Your task to perform on an android device: Go to Reddit.com Image 0: 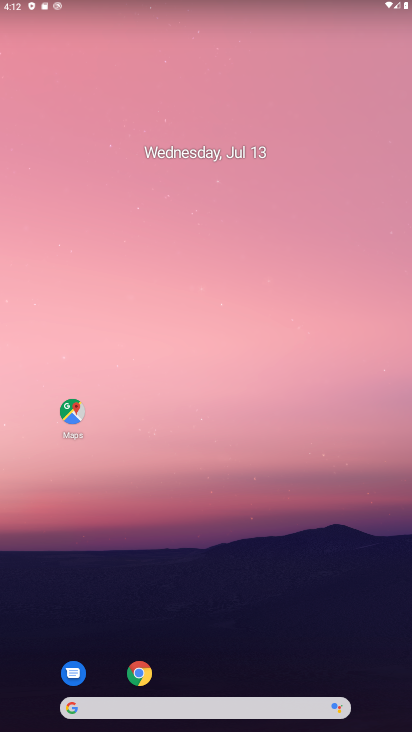
Step 0: click (219, 181)
Your task to perform on an android device: Go to Reddit.com Image 1: 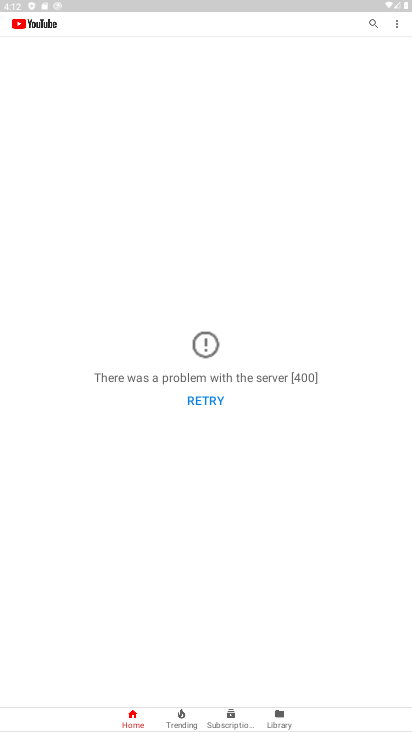
Step 1: press back button
Your task to perform on an android device: Go to Reddit.com Image 2: 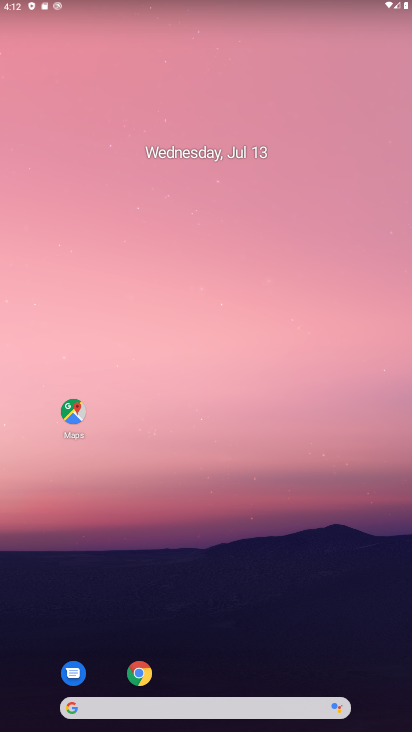
Step 2: drag from (244, 643) to (144, 115)
Your task to perform on an android device: Go to Reddit.com Image 3: 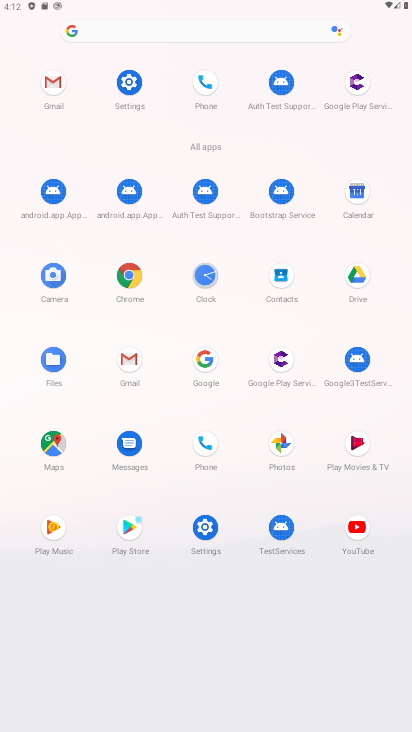
Step 3: click (126, 282)
Your task to perform on an android device: Go to Reddit.com Image 4: 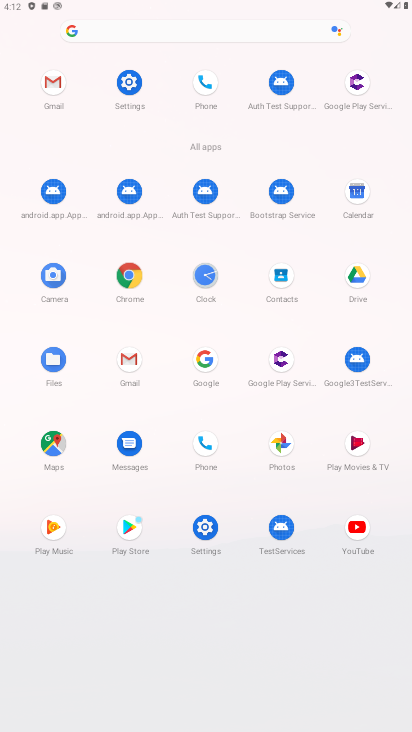
Step 4: click (128, 282)
Your task to perform on an android device: Go to Reddit.com Image 5: 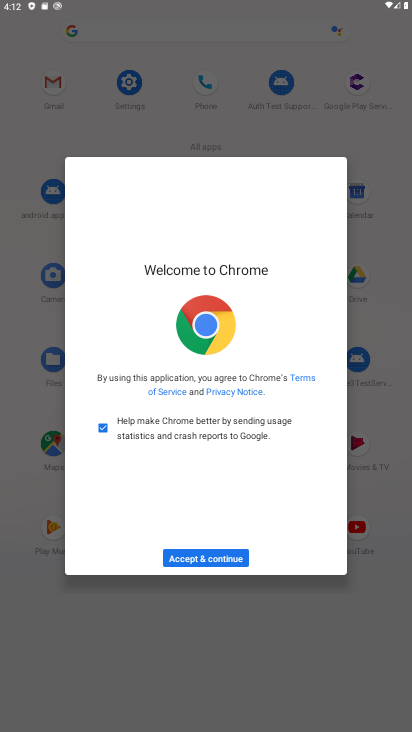
Step 5: click (214, 555)
Your task to perform on an android device: Go to Reddit.com Image 6: 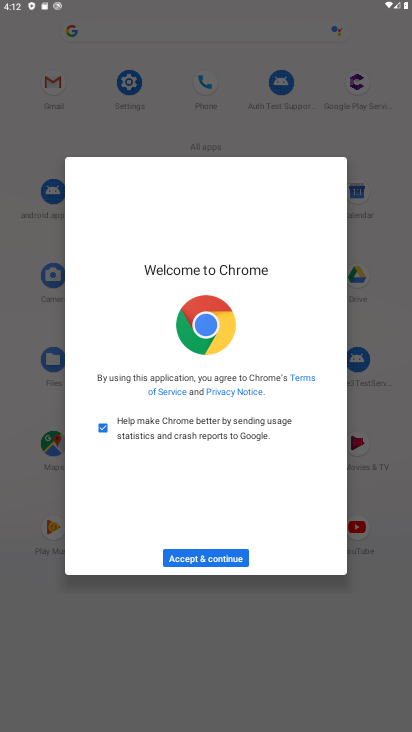
Step 6: click (214, 555)
Your task to perform on an android device: Go to Reddit.com Image 7: 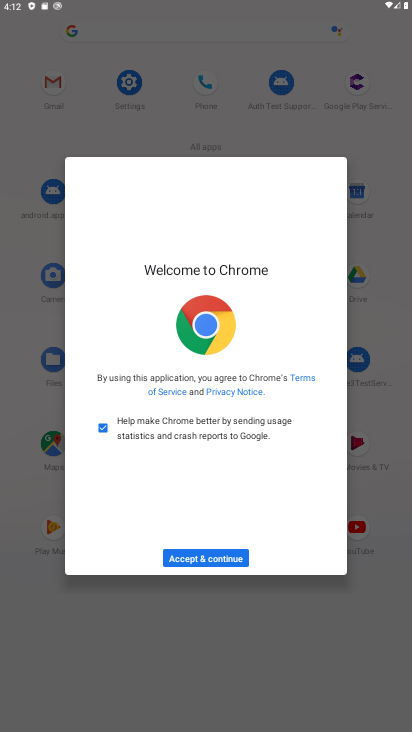
Step 7: click (215, 556)
Your task to perform on an android device: Go to Reddit.com Image 8: 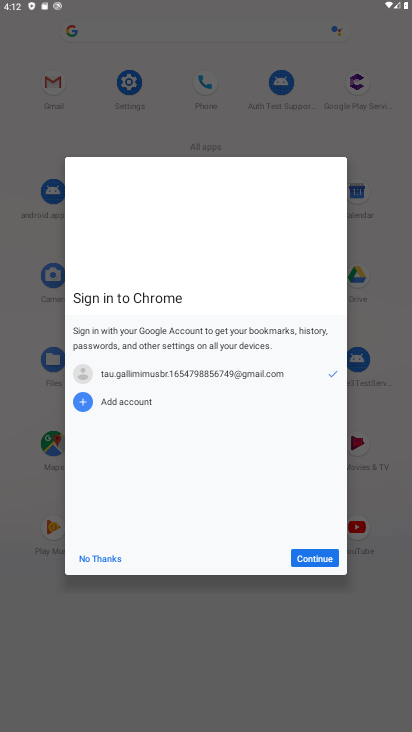
Step 8: click (215, 556)
Your task to perform on an android device: Go to Reddit.com Image 9: 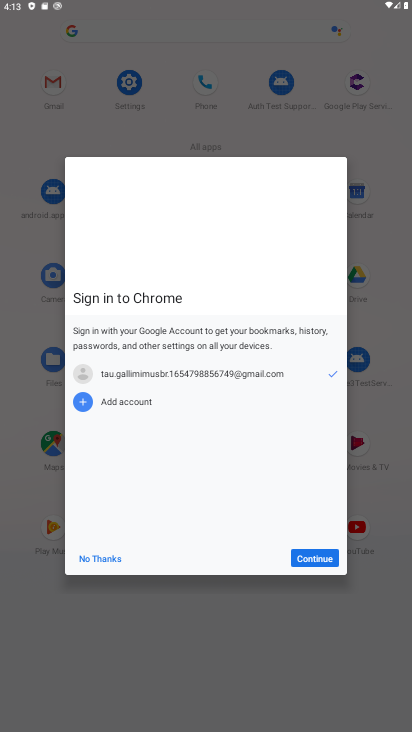
Step 9: click (325, 544)
Your task to perform on an android device: Go to Reddit.com Image 10: 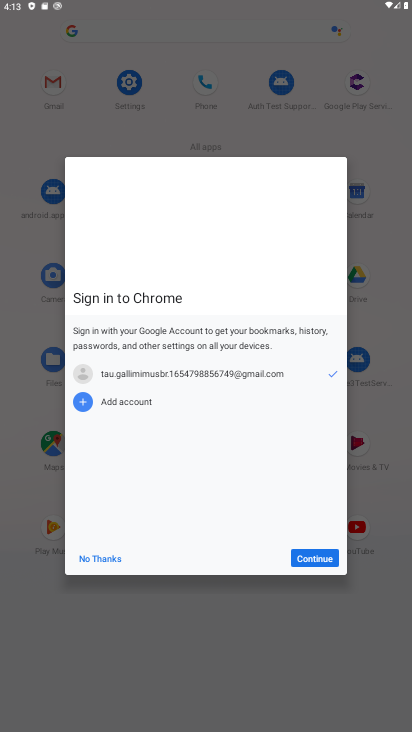
Step 10: click (325, 551)
Your task to perform on an android device: Go to Reddit.com Image 11: 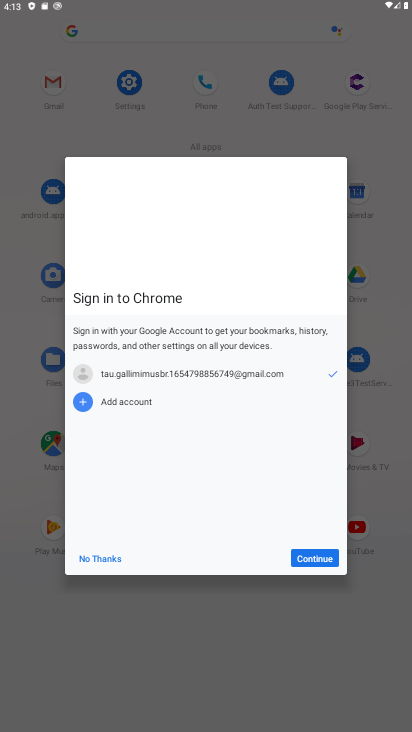
Step 11: click (328, 551)
Your task to perform on an android device: Go to Reddit.com Image 12: 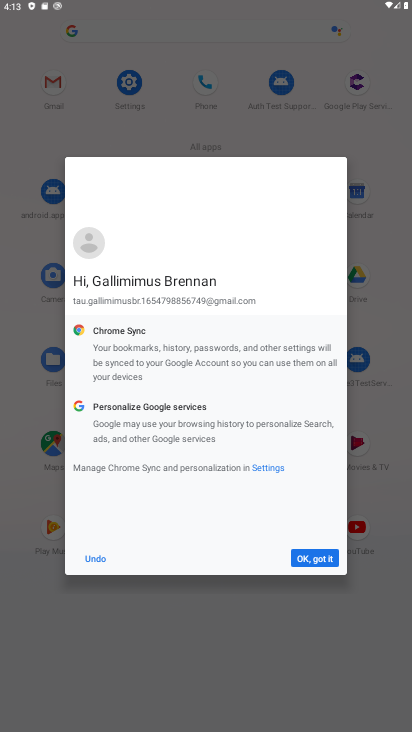
Step 12: click (328, 560)
Your task to perform on an android device: Go to Reddit.com Image 13: 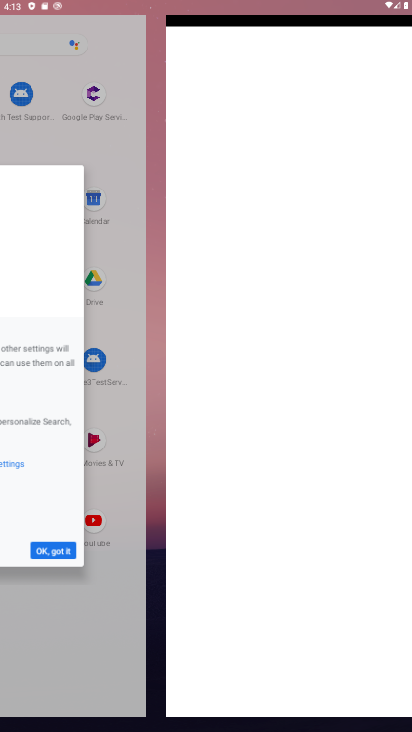
Step 13: click (330, 560)
Your task to perform on an android device: Go to Reddit.com Image 14: 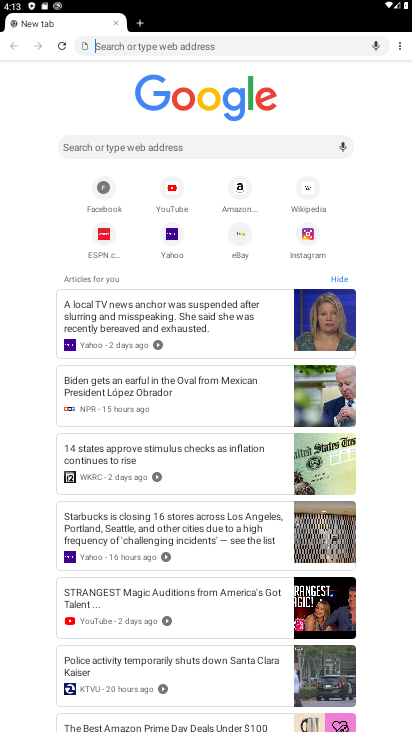
Step 14: click (122, 137)
Your task to perform on an android device: Go to Reddit.com Image 15: 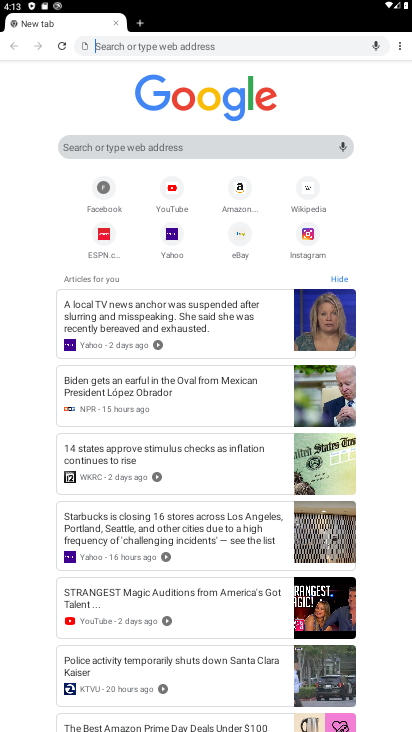
Step 15: click (124, 142)
Your task to perform on an android device: Go to Reddit.com Image 16: 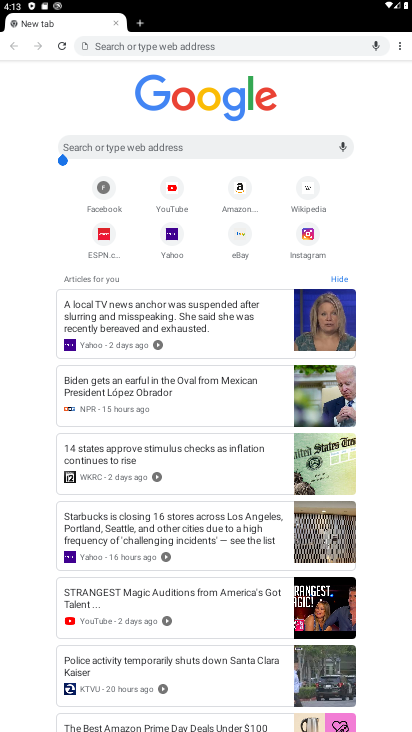
Step 16: click (125, 143)
Your task to perform on an android device: Go to Reddit.com Image 17: 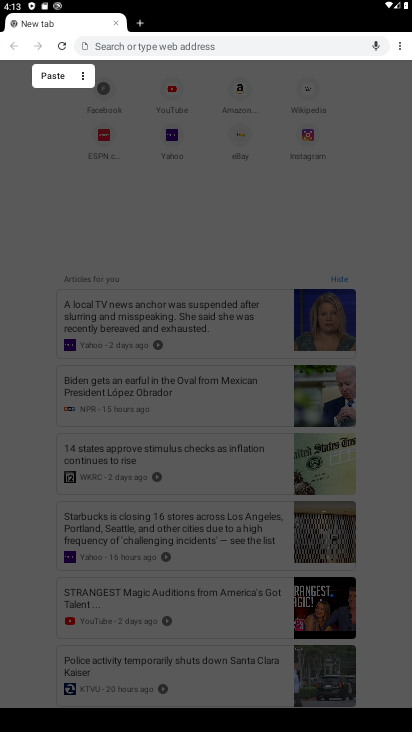
Step 17: type "reddit.com"
Your task to perform on an android device: Go to Reddit.com Image 18: 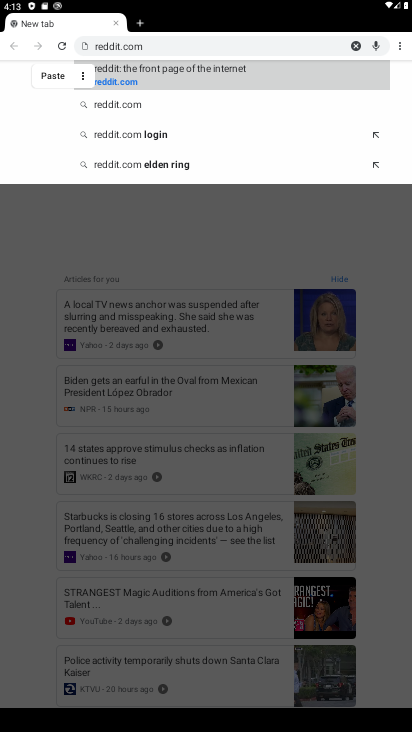
Step 18: click (125, 100)
Your task to perform on an android device: Go to Reddit.com Image 19: 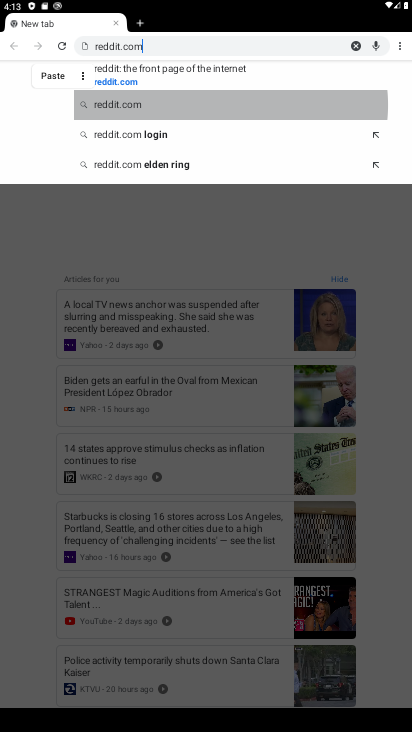
Step 19: click (125, 100)
Your task to perform on an android device: Go to Reddit.com Image 20: 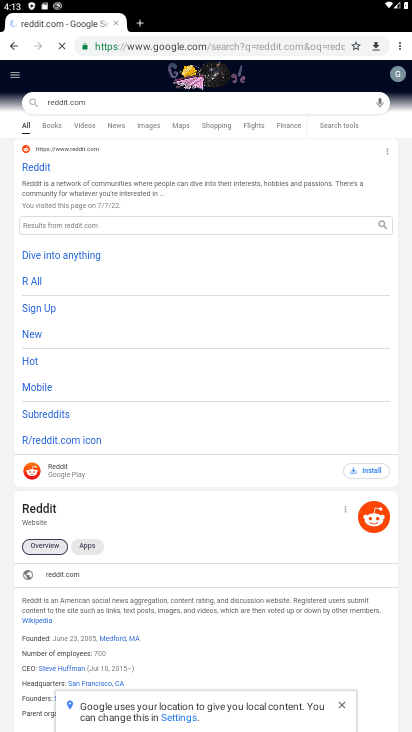
Step 20: task complete